Your task to perform on an android device: Open Yahoo.com Image 0: 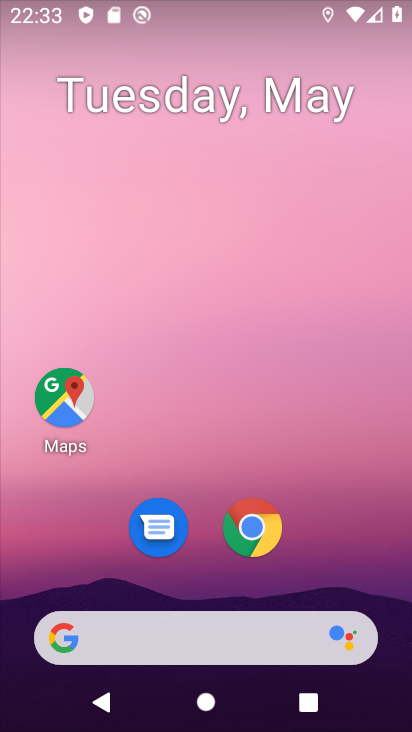
Step 0: drag from (211, 562) to (215, 39)
Your task to perform on an android device: Open Yahoo.com Image 1: 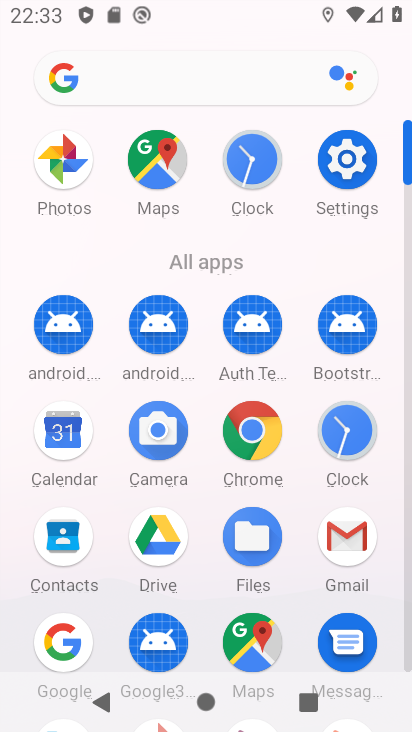
Step 1: click (154, 75)
Your task to perform on an android device: Open Yahoo.com Image 2: 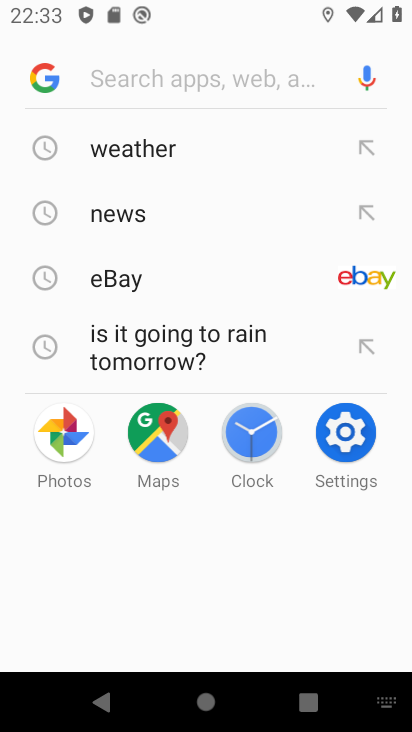
Step 2: type "Yahoo.com"
Your task to perform on an android device: Open Yahoo.com Image 3: 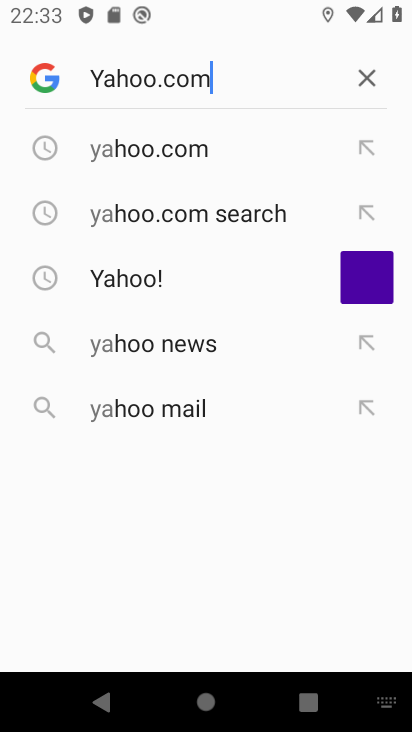
Step 3: type ""
Your task to perform on an android device: Open Yahoo.com Image 4: 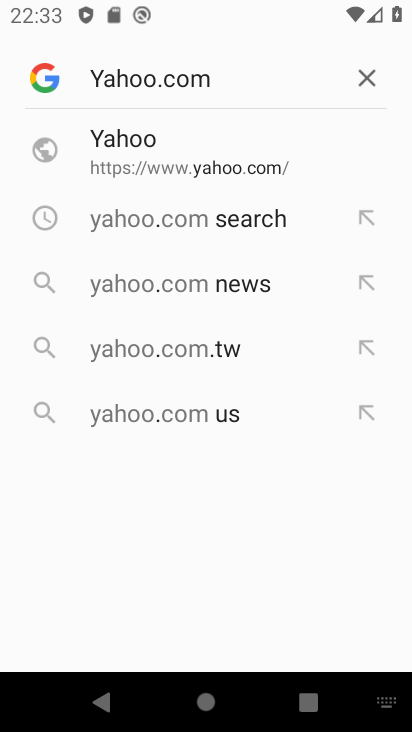
Step 4: click (120, 137)
Your task to perform on an android device: Open Yahoo.com Image 5: 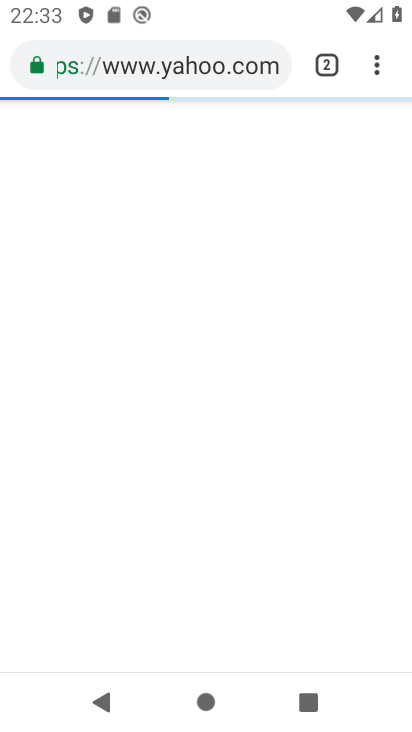
Step 5: task complete